Your task to perform on an android device: What's on my calendar tomorrow? Image 0: 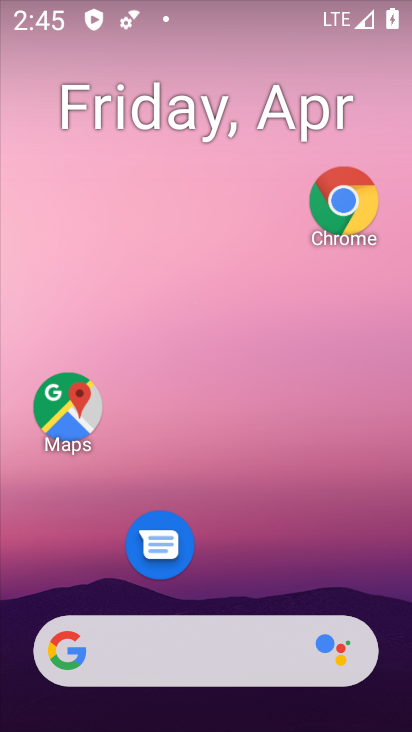
Step 0: drag from (224, 559) to (258, 148)
Your task to perform on an android device: What's on my calendar tomorrow? Image 1: 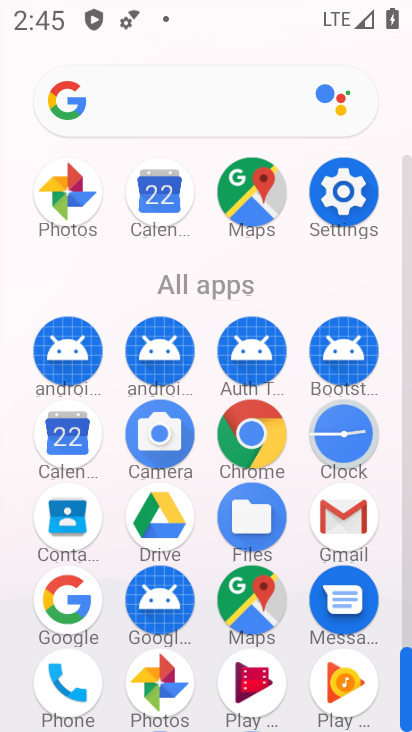
Step 1: click (64, 450)
Your task to perform on an android device: What's on my calendar tomorrow? Image 2: 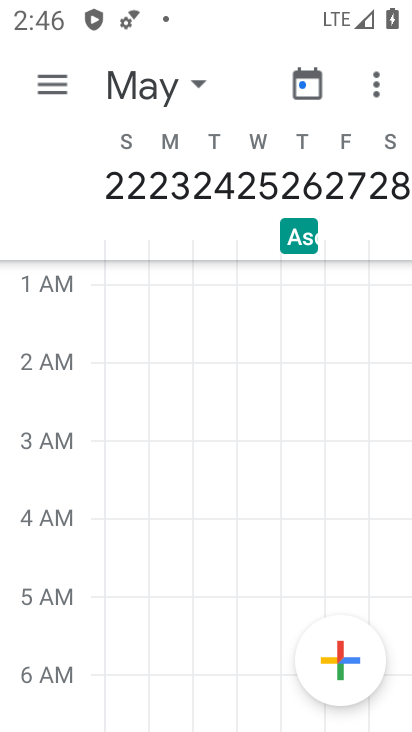
Step 2: click (138, 87)
Your task to perform on an android device: What's on my calendar tomorrow? Image 3: 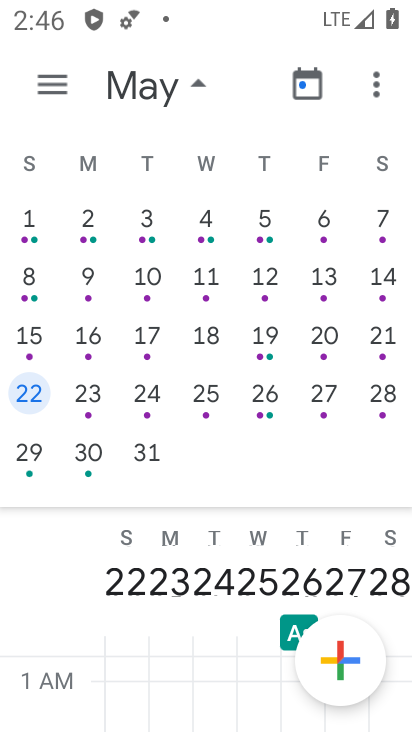
Step 3: drag from (63, 236) to (401, 349)
Your task to perform on an android device: What's on my calendar tomorrow? Image 4: 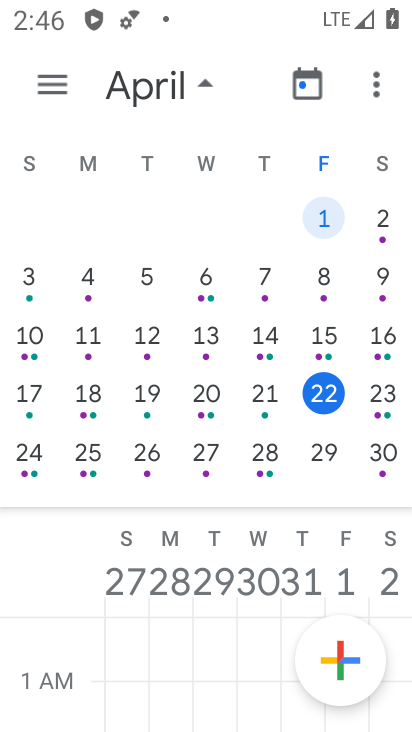
Step 4: click (49, 86)
Your task to perform on an android device: What's on my calendar tomorrow? Image 5: 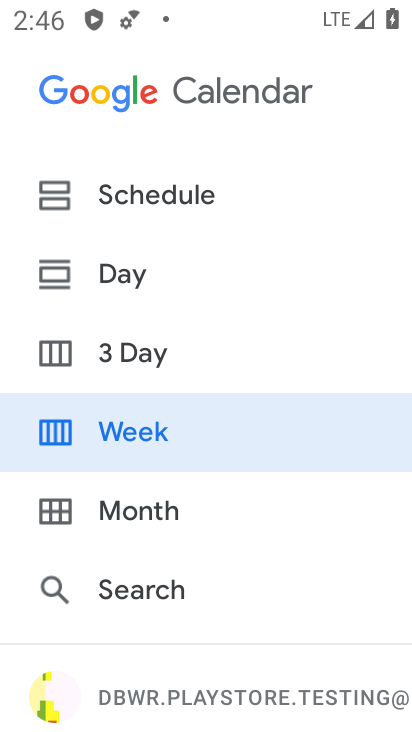
Step 5: click (182, 350)
Your task to perform on an android device: What's on my calendar tomorrow? Image 6: 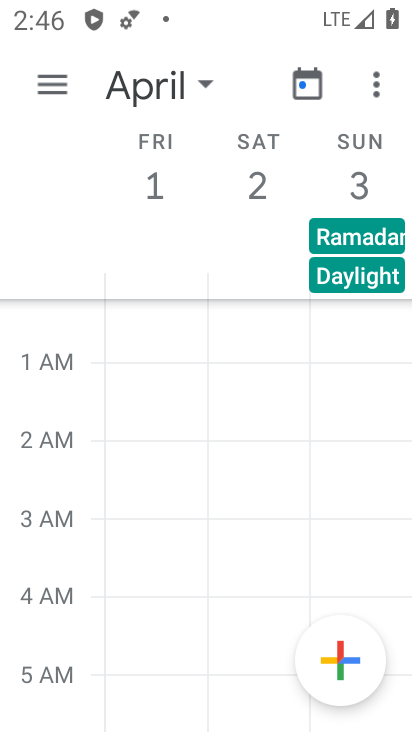
Step 6: task complete